Your task to perform on an android device: turn off notifications in google photos Image 0: 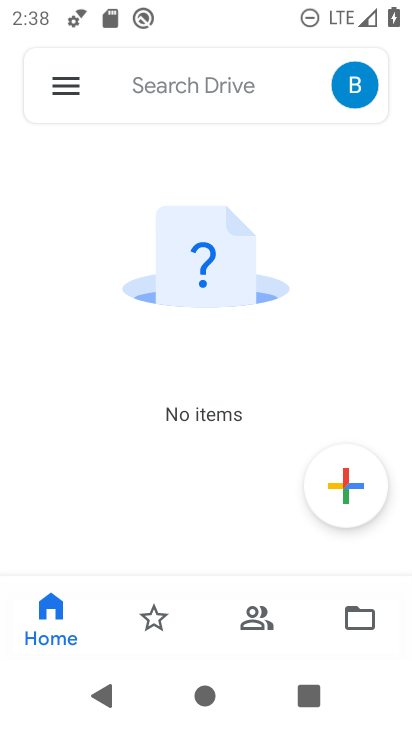
Step 0: press home button
Your task to perform on an android device: turn off notifications in google photos Image 1: 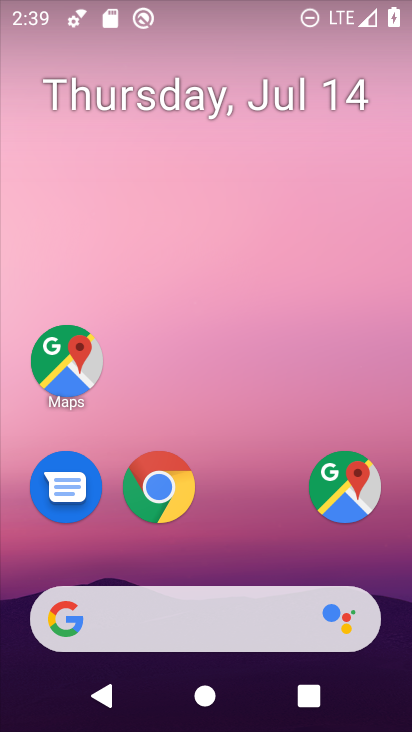
Step 1: drag from (264, 546) to (279, 174)
Your task to perform on an android device: turn off notifications in google photos Image 2: 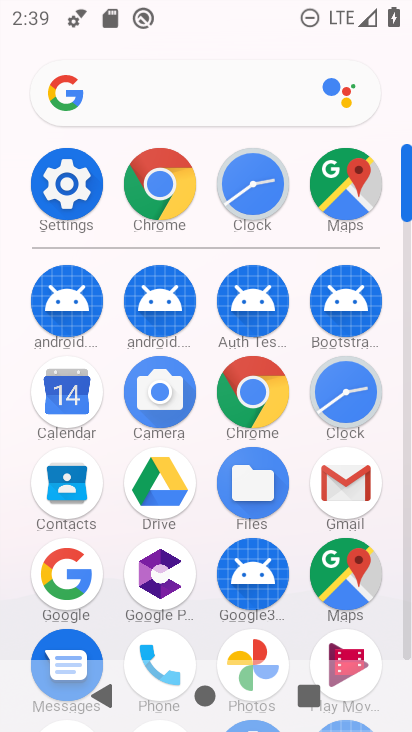
Step 2: drag from (378, 634) to (391, 355)
Your task to perform on an android device: turn off notifications in google photos Image 3: 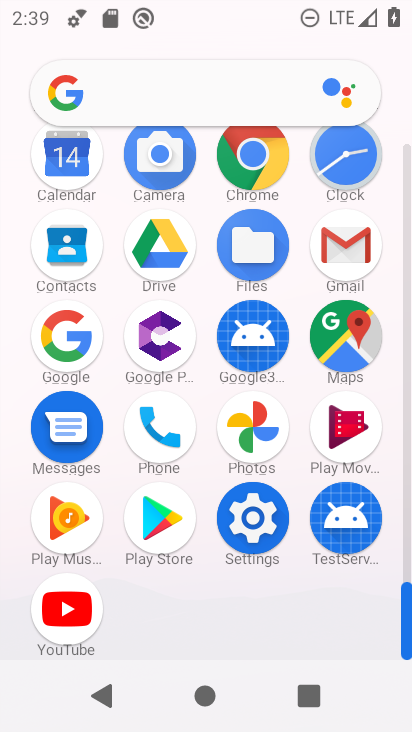
Step 3: click (261, 428)
Your task to perform on an android device: turn off notifications in google photos Image 4: 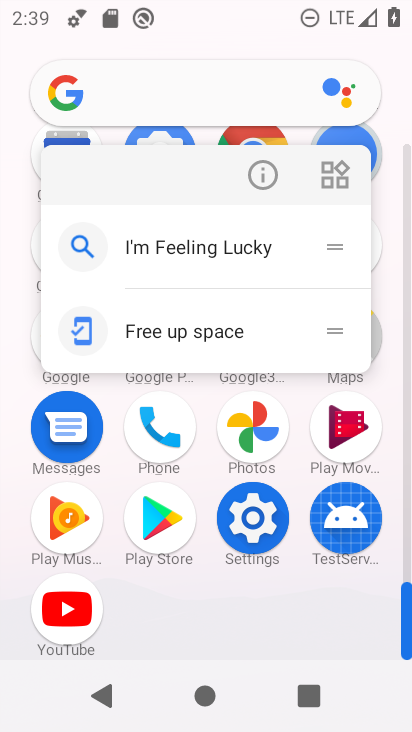
Step 4: click (261, 427)
Your task to perform on an android device: turn off notifications in google photos Image 5: 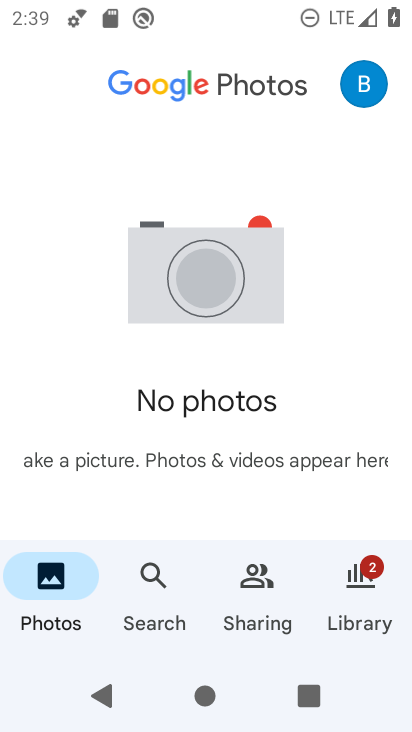
Step 5: click (367, 96)
Your task to perform on an android device: turn off notifications in google photos Image 6: 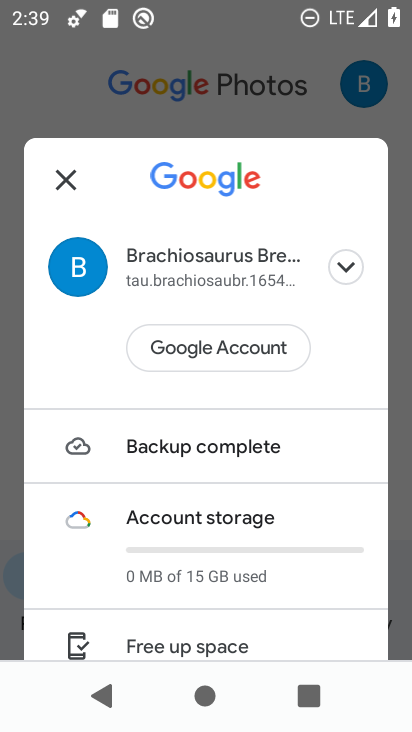
Step 6: drag from (294, 583) to (297, 432)
Your task to perform on an android device: turn off notifications in google photos Image 7: 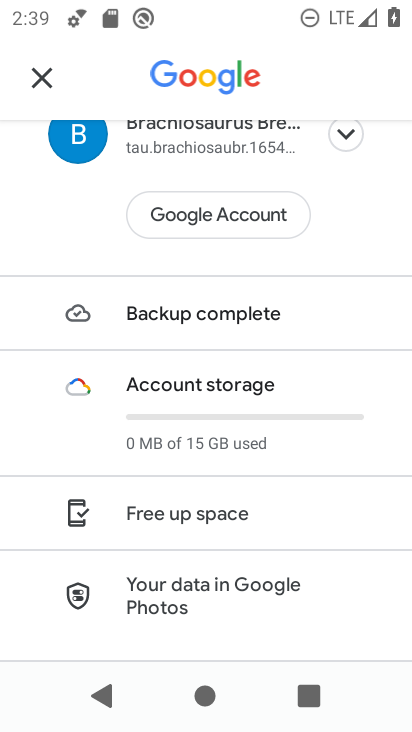
Step 7: drag from (322, 609) to (322, 453)
Your task to perform on an android device: turn off notifications in google photos Image 8: 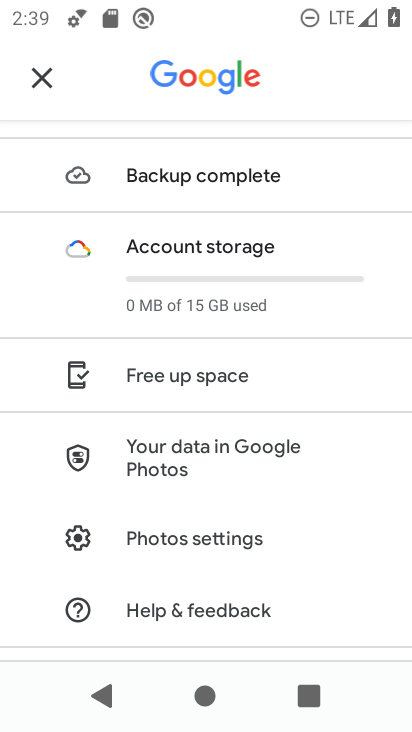
Step 8: click (244, 544)
Your task to perform on an android device: turn off notifications in google photos Image 9: 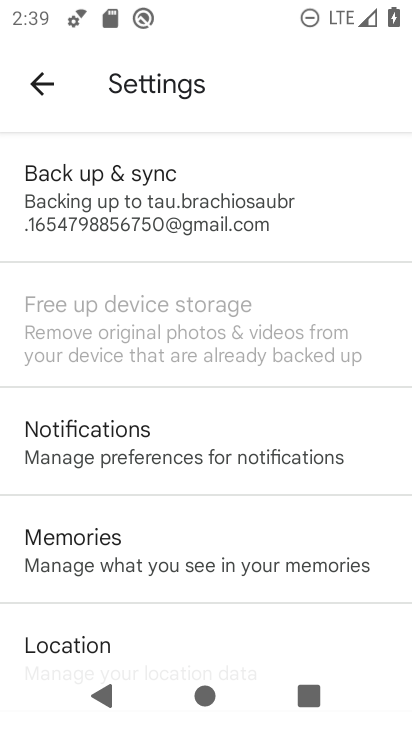
Step 9: click (218, 455)
Your task to perform on an android device: turn off notifications in google photos Image 10: 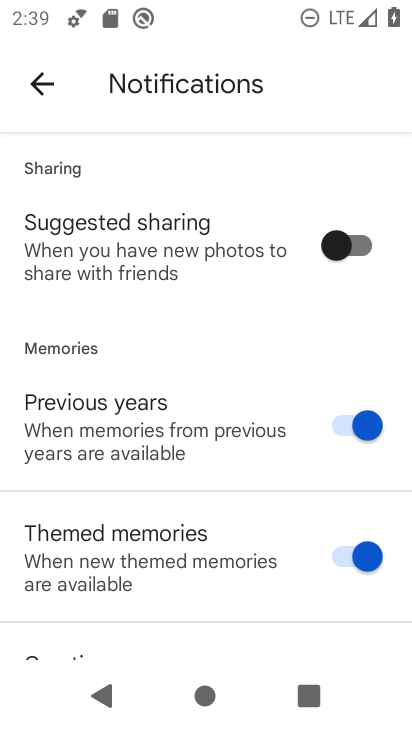
Step 10: drag from (270, 567) to (272, 356)
Your task to perform on an android device: turn off notifications in google photos Image 11: 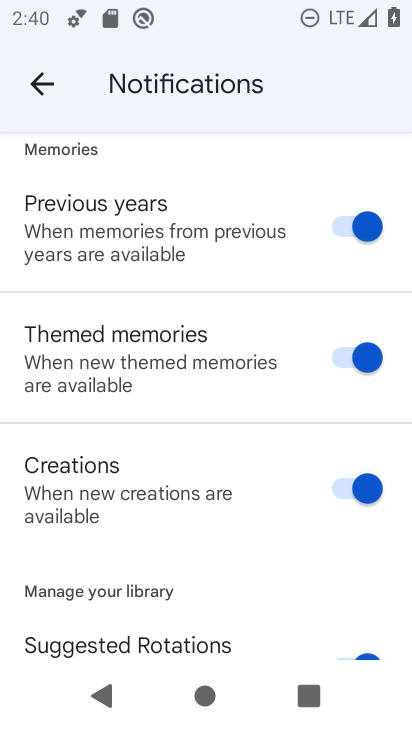
Step 11: drag from (255, 560) to (262, 378)
Your task to perform on an android device: turn off notifications in google photos Image 12: 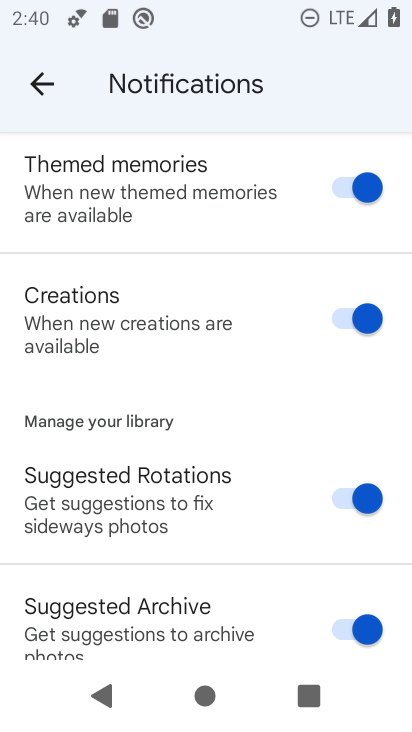
Step 12: drag from (270, 582) to (278, 496)
Your task to perform on an android device: turn off notifications in google photos Image 13: 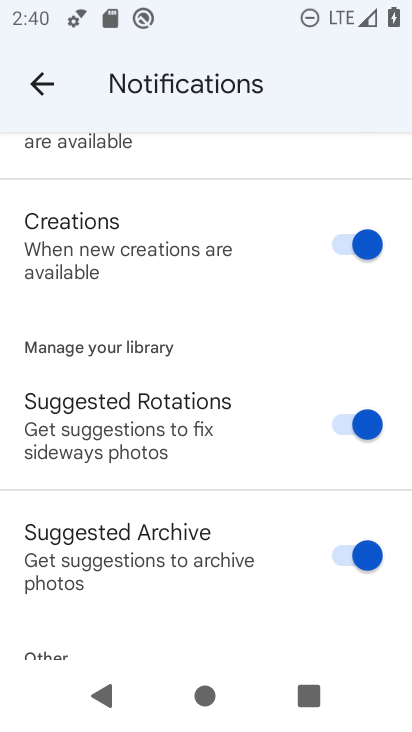
Step 13: drag from (290, 540) to (292, 394)
Your task to perform on an android device: turn off notifications in google photos Image 14: 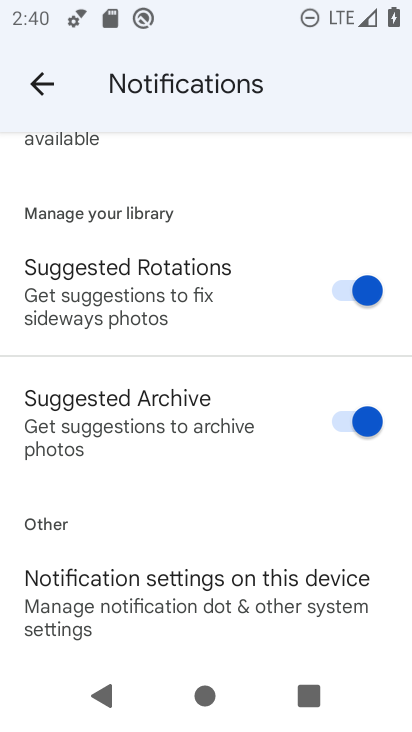
Step 14: drag from (268, 507) to (272, 384)
Your task to perform on an android device: turn off notifications in google photos Image 15: 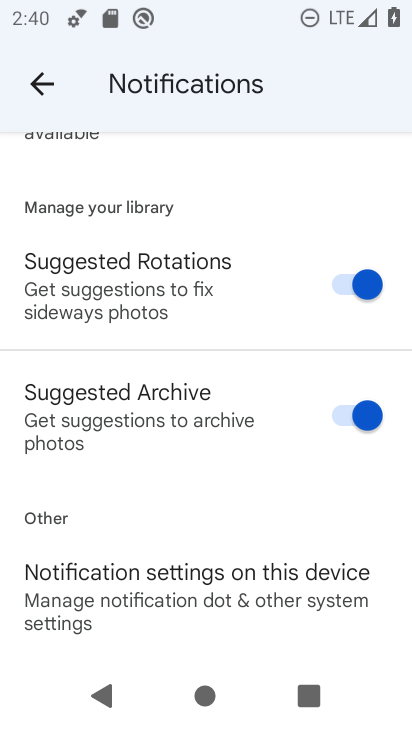
Step 15: drag from (267, 560) to (267, 437)
Your task to perform on an android device: turn off notifications in google photos Image 16: 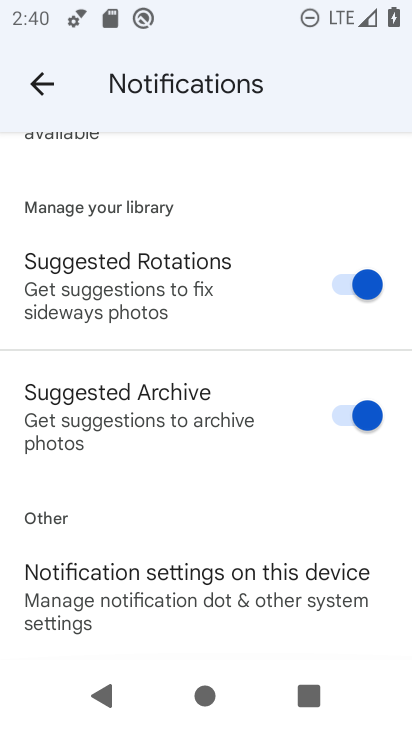
Step 16: click (267, 581)
Your task to perform on an android device: turn off notifications in google photos Image 17: 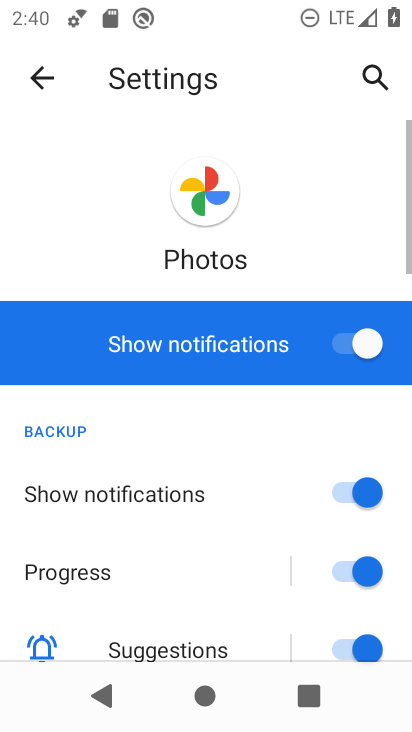
Step 17: click (355, 351)
Your task to perform on an android device: turn off notifications in google photos Image 18: 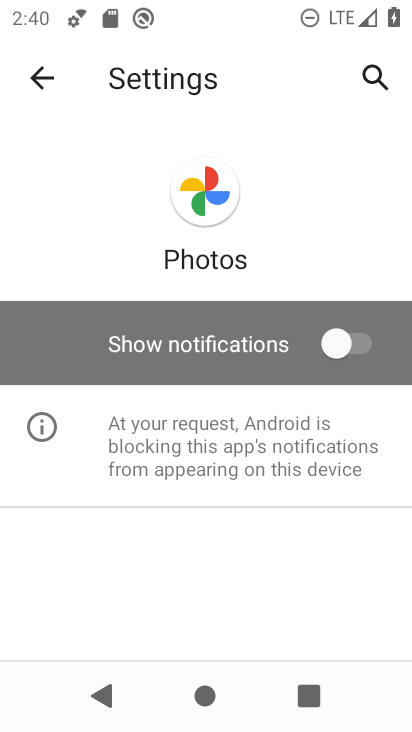
Step 18: task complete